Your task to perform on an android device: turn on sleep mode Image 0: 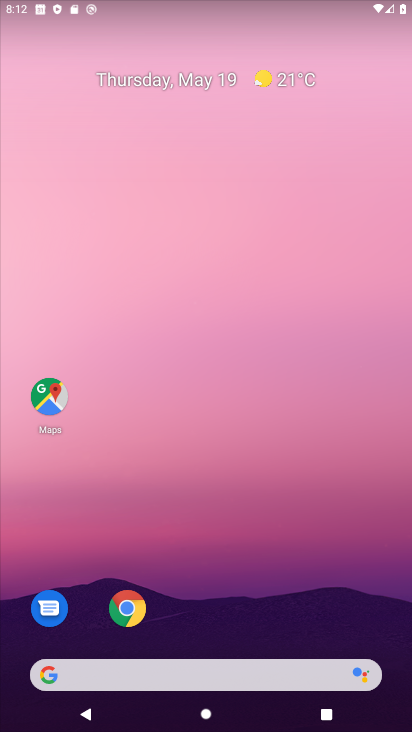
Step 0: click (150, 142)
Your task to perform on an android device: turn on sleep mode Image 1: 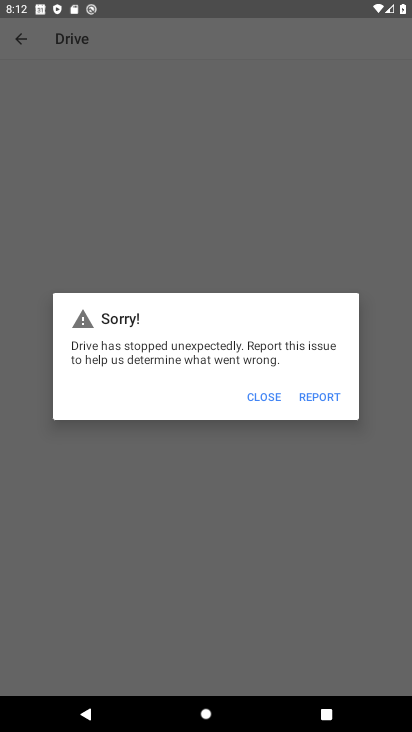
Step 1: click (269, 216)
Your task to perform on an android device: turn on sleep mode Image 2: 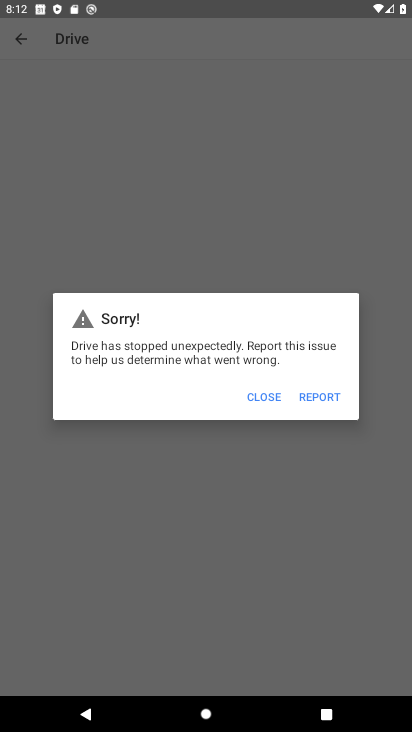
Step 2: press home button
Your task to perform on an android device: turn on sleep mode Image 3: 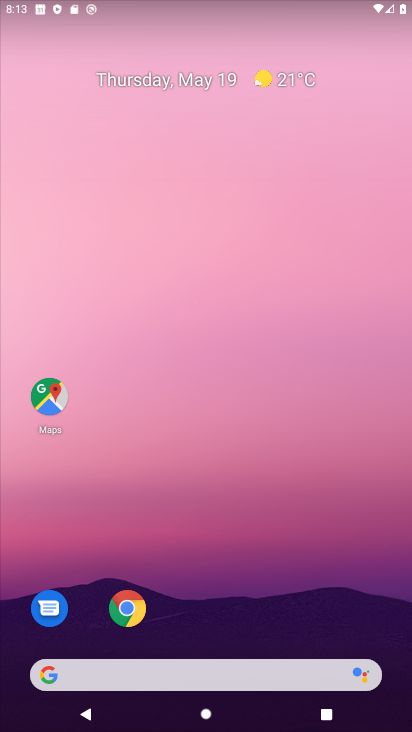
Step 3: drag from (226, 530) to (152, 134)
Your task to perform on an android device: turn on sleep mode Image 4: 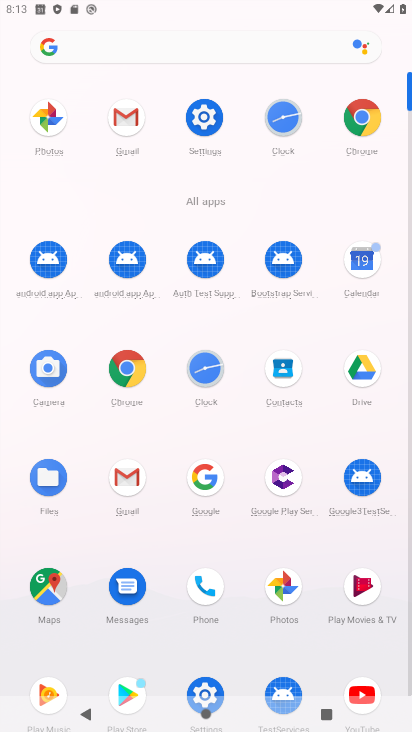
Step 4: click (200, 108)
Your task to perform on an android device: turn on sleep mode Image 5: 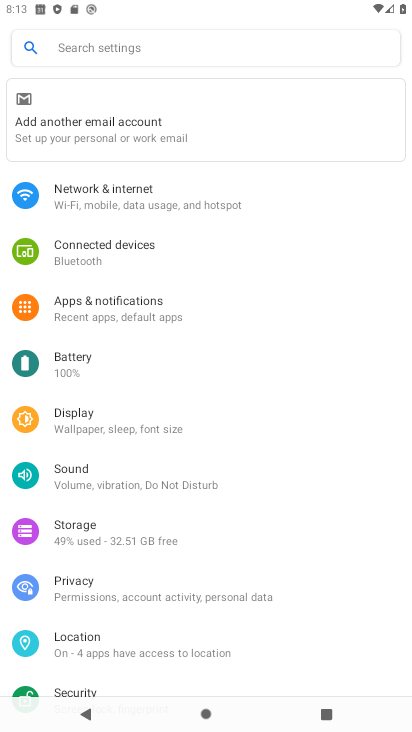
Step 5: click (83, 413)
Your task to perform on an android device: turn on sleep mode Image 6: 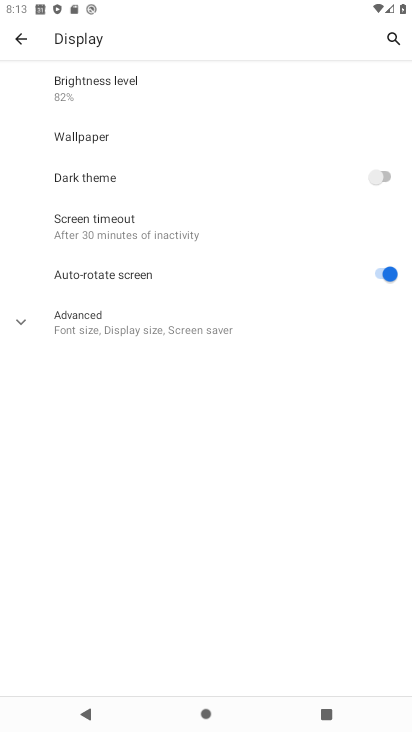
Step 6: task complete